Your task to perform on an android device: Open Chrome and go to settings Image 0: 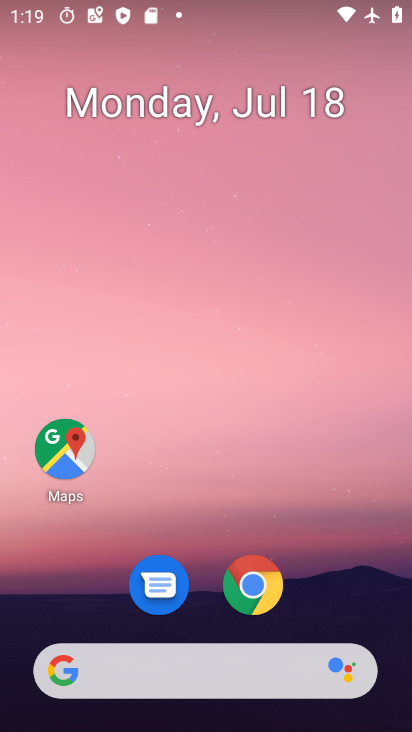
Step 0: press home button
Your task to perform on an android device: Open Chrome and go to settings Image 1: 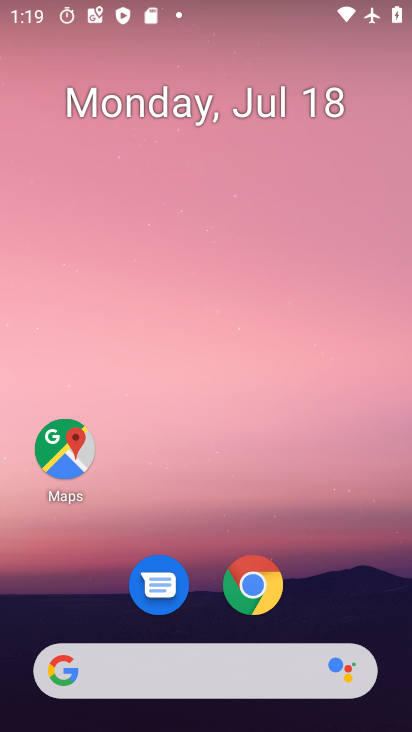
Step 1: click (249, 594)
Your task to perform on an android device: Open Chrome and go to settings Image 2: 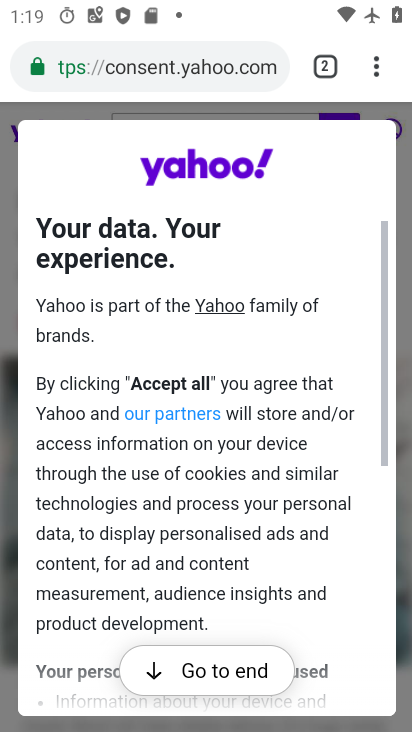
Step 2: task complete